Your task to perform on an android device: change the clock style Image 0: 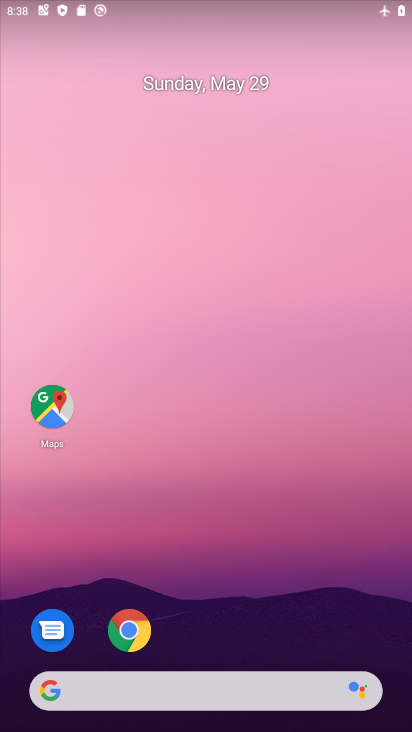
Step 0: drag from (213, 652) to (140, 30)
Your task to perform on an android device: change the clock style Image 1: 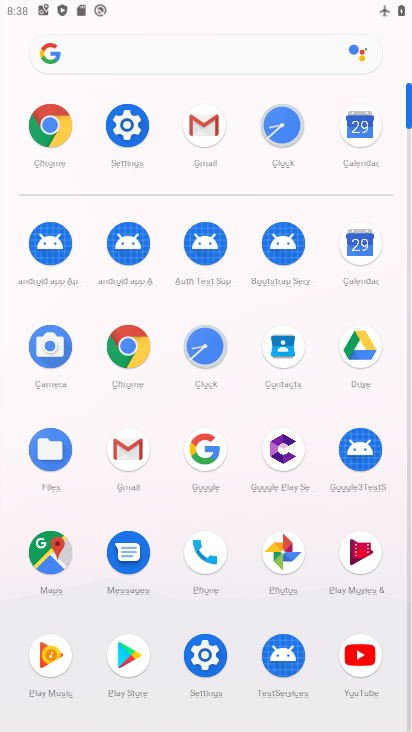
Step 1: click (224, 354)
Your task to perform on an android device: change the clock style Image 2: 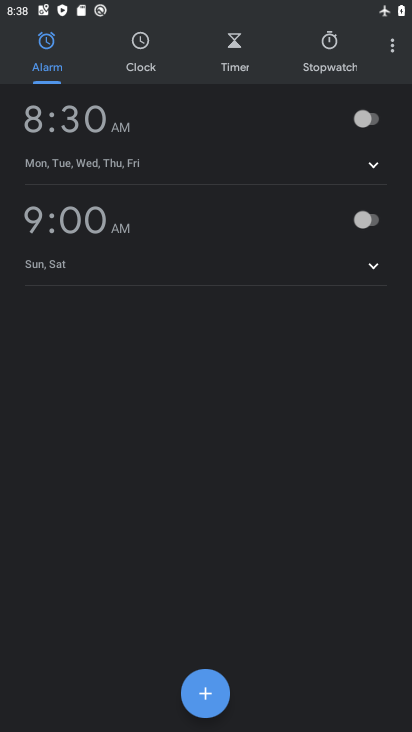
Step 2: click (401, 63)
Your task to perform on an android device: change the clock style Image 3: 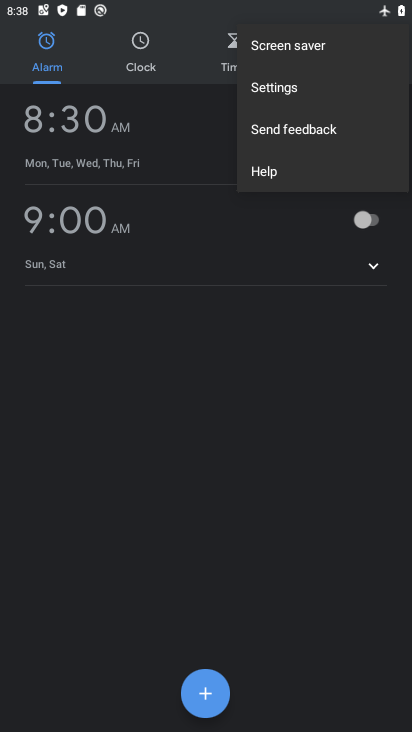
Step 3: click (264, 86)
Your task to perform on an android device: change the clock style Image 4: 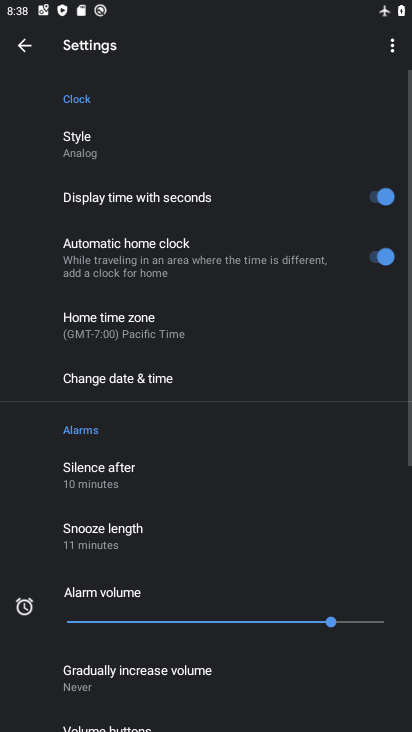
Step 4: click (60, 157)
Your task to perform on an android device: change the clock style Image 5: 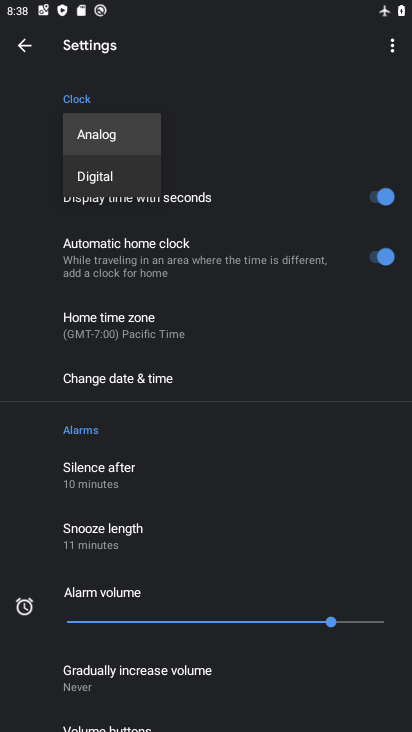
Step 5: click (93, 158)
Your task to perform on an android device: change the clock style Image 6: 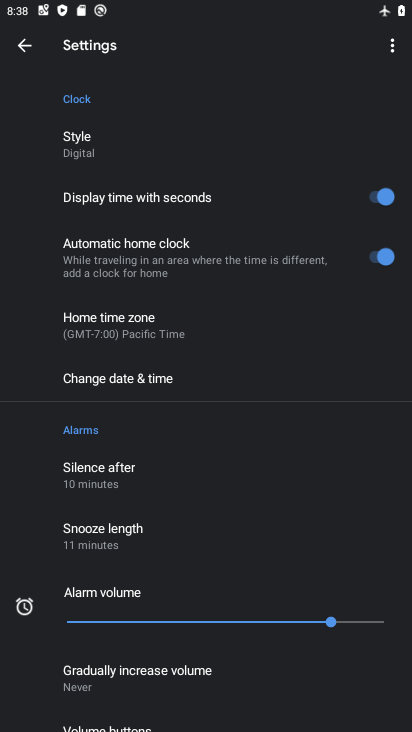
Step 6: task complete